Your task to perform on an android device: empty trash in google photos Image 0: 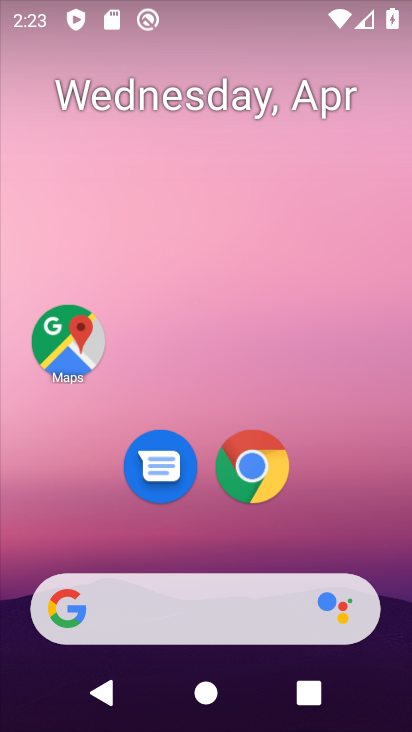
Step 0: drag from (168, 600) to (244, 119)
Your task to perform on an android device: empty trash in google photos Image 1: 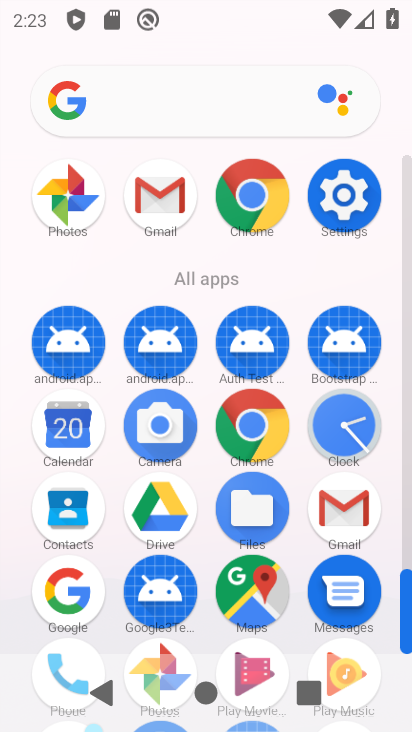
Step 1: click (57, 179)
Your task to perform on an android device: empty trash in google photos Image 2: 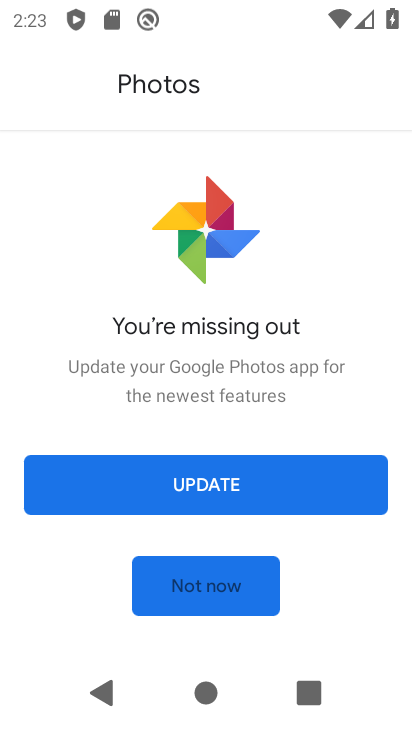
Step 2: click (146, 590)
Your task to perform on an android device: empty trash in google photos Image 3: 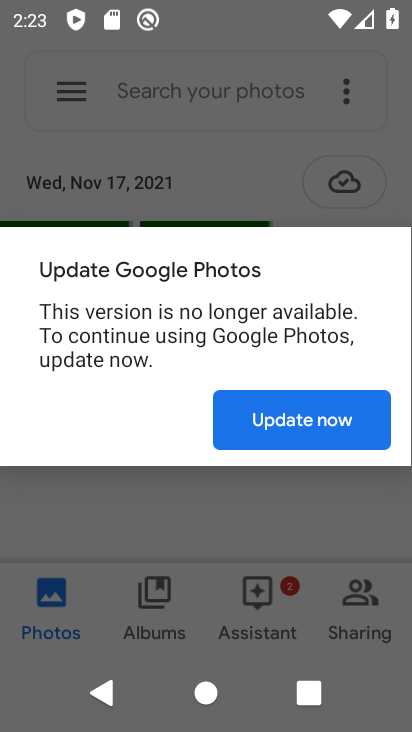
Step 3: click (306, 416)
Your task to perform on an android device: empty trash in google photos Image 4: 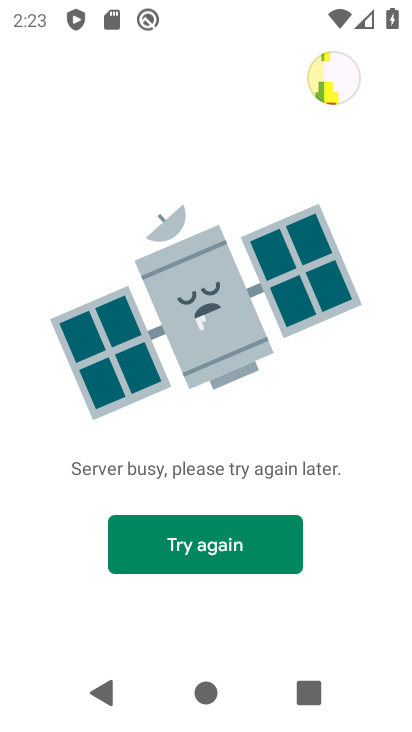
Step 4: press back button
Your task to perform on an android device: empty trash in google photos Image 5: 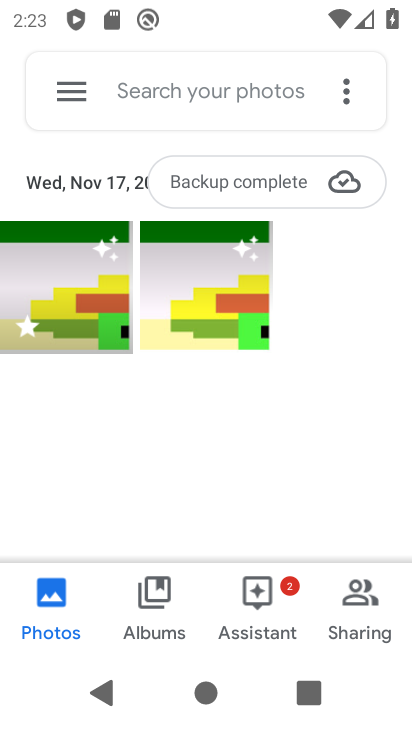
Step 5: click (77, 105)
Your task to perform on an android device: empty trash in google photos Image 6: 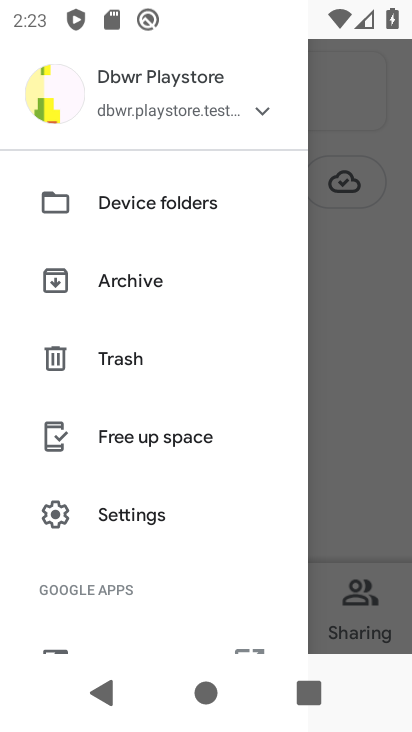
Step 6: click (127, 354)
Your task to perform on an android device: empty trash in google photos Image 7: 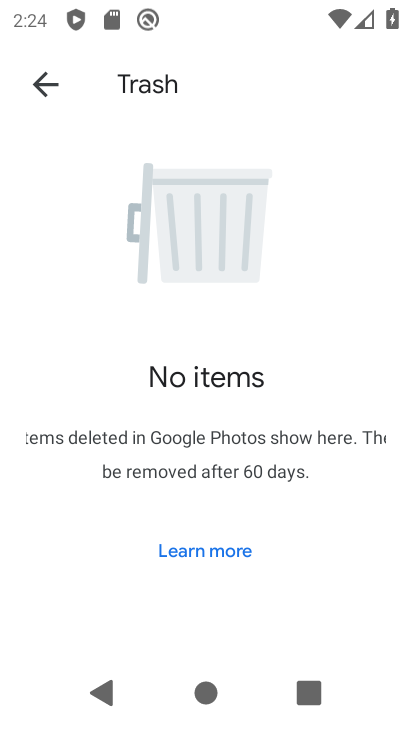
Step 7: task complete